Your task to perform on an android device: read, delete, or share a saved page in the chrome app Image 0: 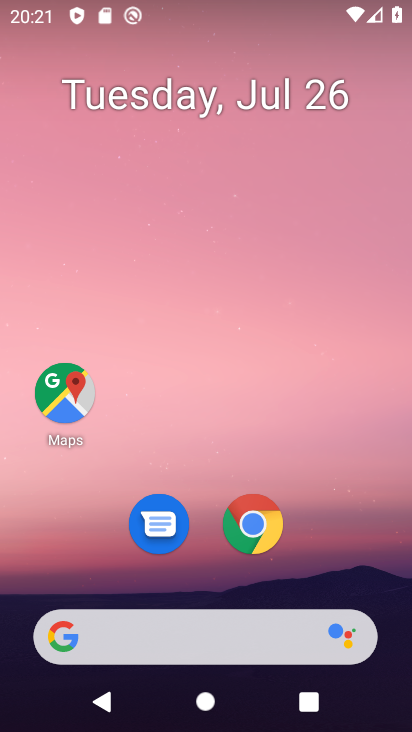
Step 0: press home button
Your task to perform on an android device: read, delete, or share a saved page in the chrome app Image 1: 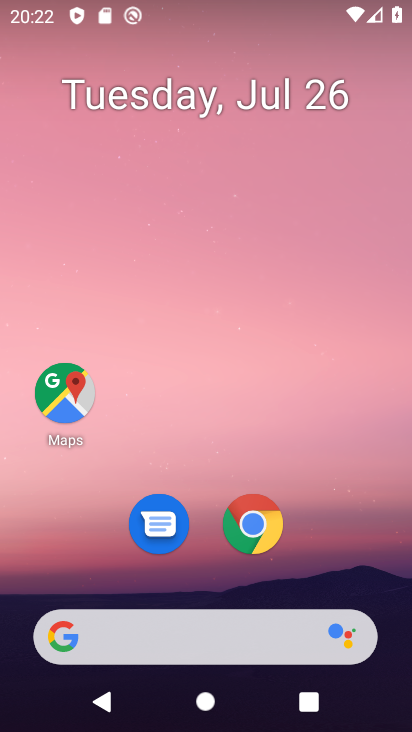
Step 1: click (242, 523)
Your task to perform on an android device: read, delete, or share a saved page in the chrome app Image 2: 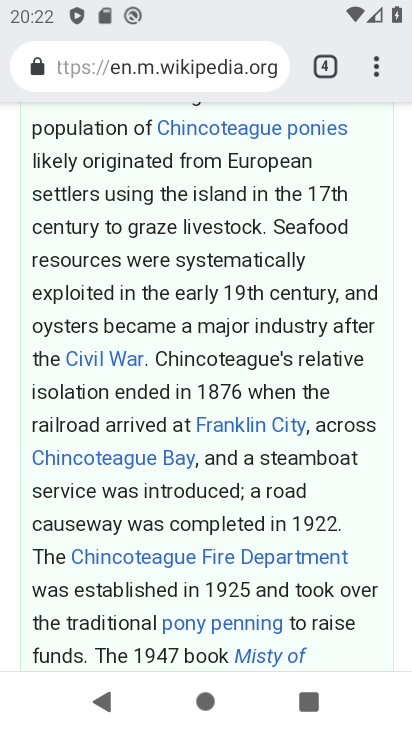
Step 2: drag from (378, 67) to (178, 435)
Your task to perform on an android device: read, delete, or share a saved page in the chrome app Image 3: 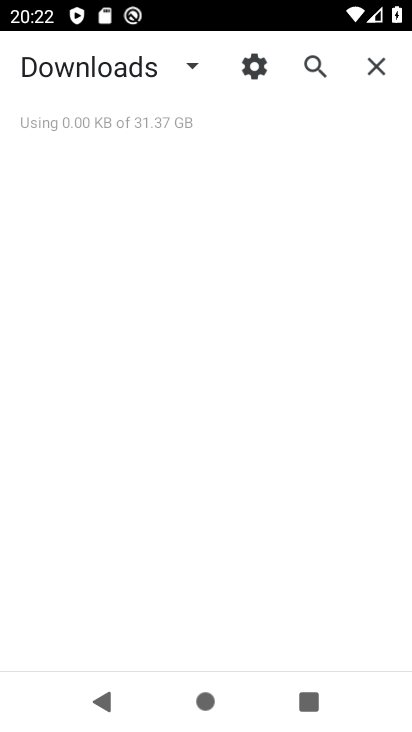
Step 3: click (180, 68)
Your task to perform on an android device: read, delete, or share a saved page in the chrome app Image 4: 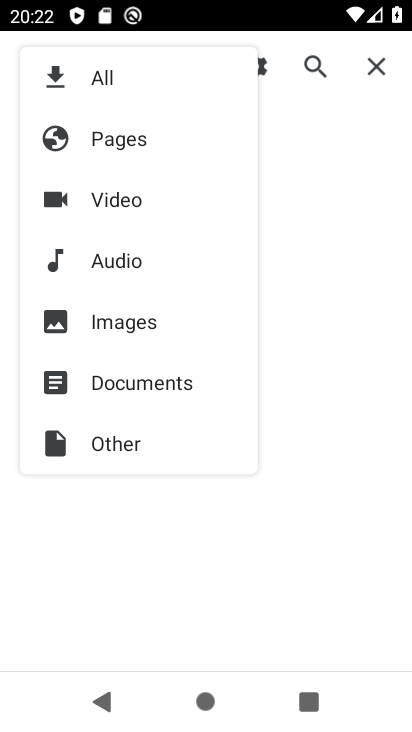
Step 4: click (101, 143)
Your task to perform on an android device: read, delete, or share a saved page in the chrome app Image 5: 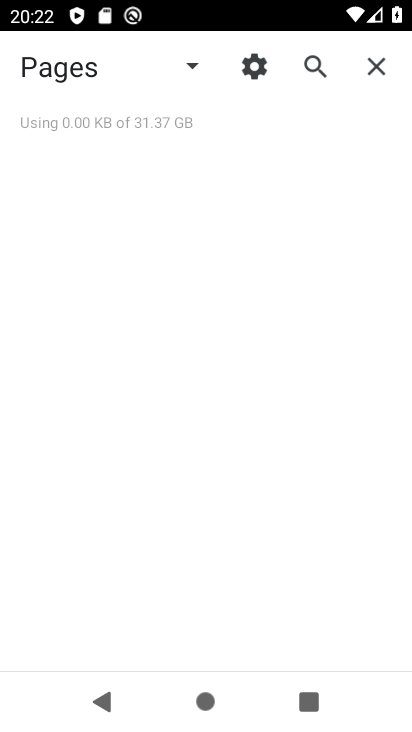
Step 5: task complete